Your task to perform on an android device: Go to ESPN.com Image 0: 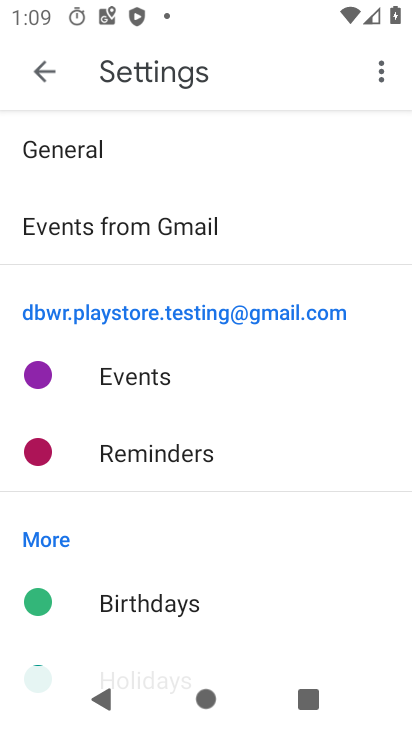
Step 0: press home button
Your task to perform on an android device: Go to ESPN.com Image 1: 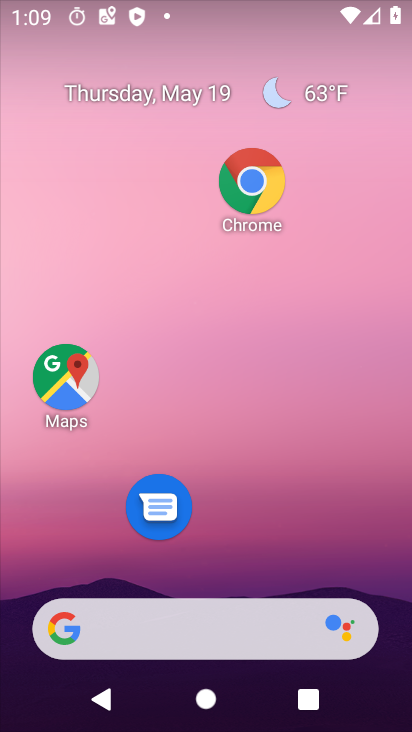
Step 1: drag from (237, 563) to (193, 115)
Your task to perform on an android device: Go to ESPN.com Image 2: 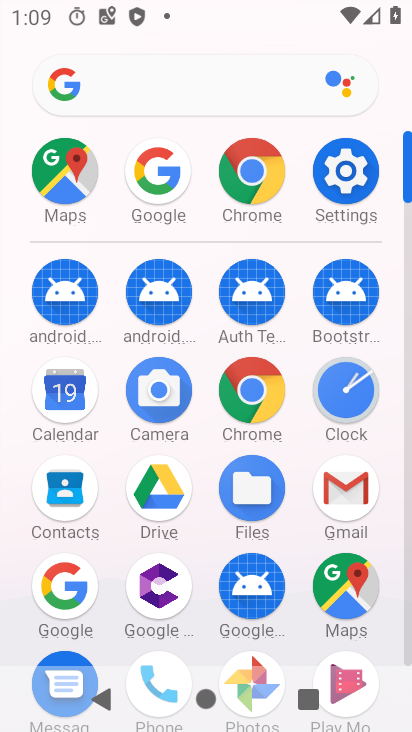
Step 2: click (267, 214)
Your task to perform on an android device: Go to ESPN.com Image 3: 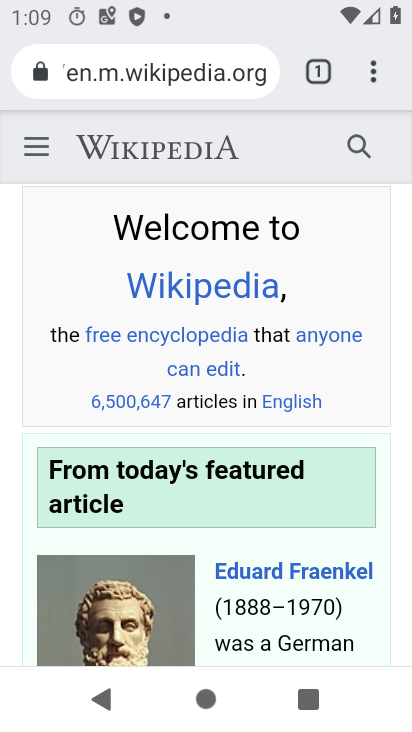
Step 3: press back button
Your task to perform on an android device: Go to ESPN.com Image 4: 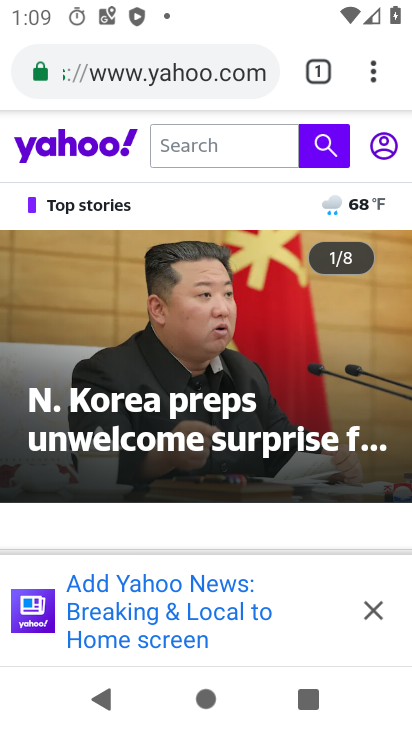
Step 4: press back button
Your task to perform on an android device: Go to ESPN.com Image 5: 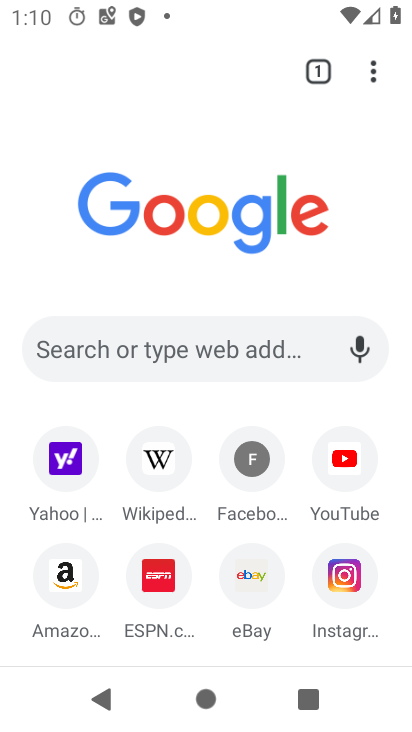
Step 5: click (150, 595)
Your task to perform on an android device: Go to ESPN.com Image 6: 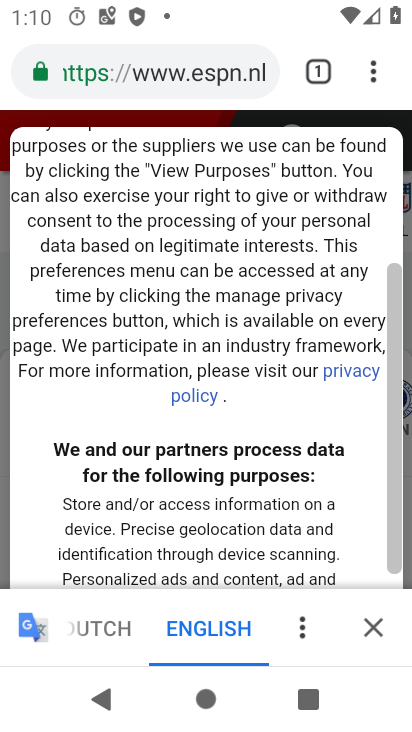
Step 6: task complete